Your task to perform on an android device: change the clock style Image 0: 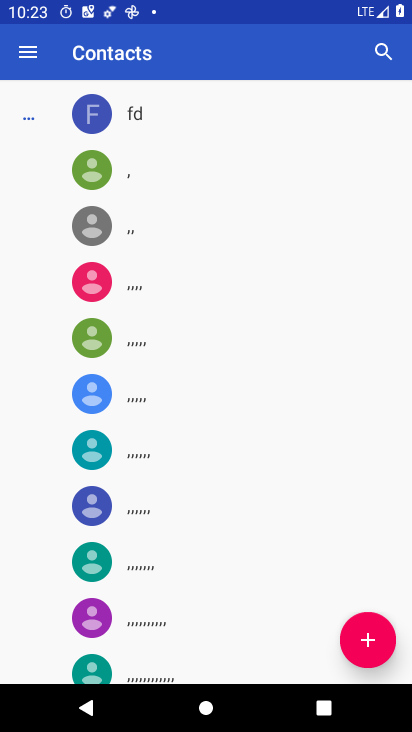
Step 0: press back button
Your task to perform on an android device: change the clock style Image 1: 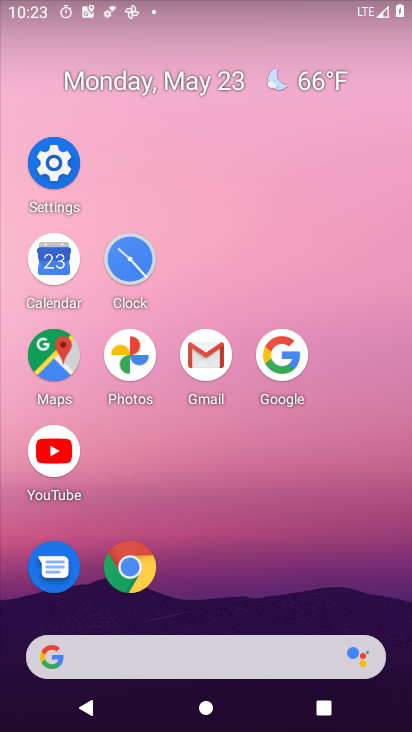
Step 1: click (133, 249)
Your task to perform on an android device: change the clock style Image 2: 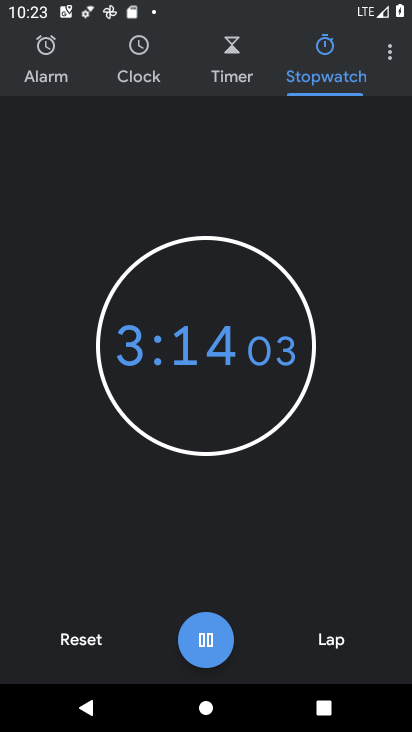
Step 2: click (399, 48)
Your task to perform on an android device: change the clock style Image 3: 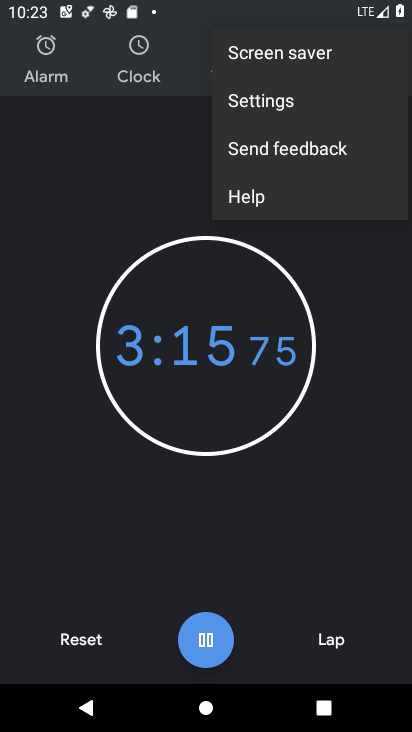
Step 3: click (243, 103)
Your task to perform on an android device: change the clock style Image 4: 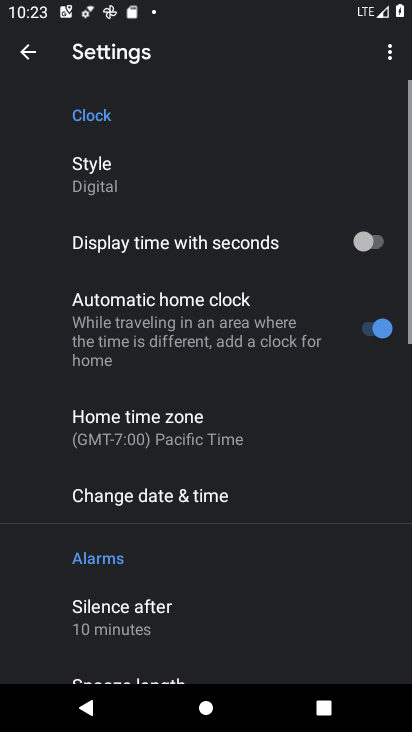
Step 4: click (153, 169)
Your task to perform on an android device: change the clock style Image 5: 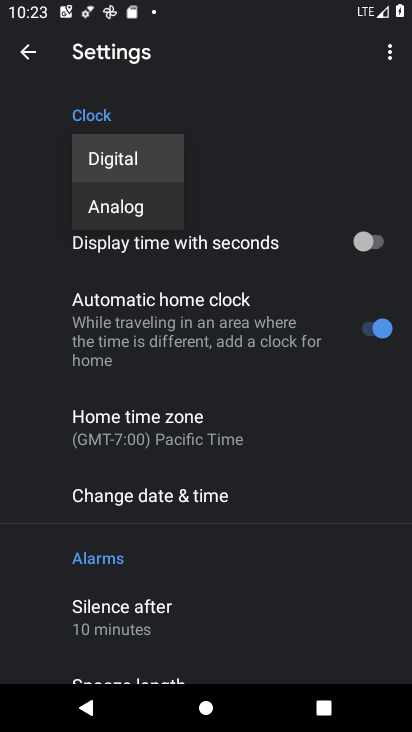
Step 5: click (151, 218)
Your task to perform on an android device: change the clock style Image 6: 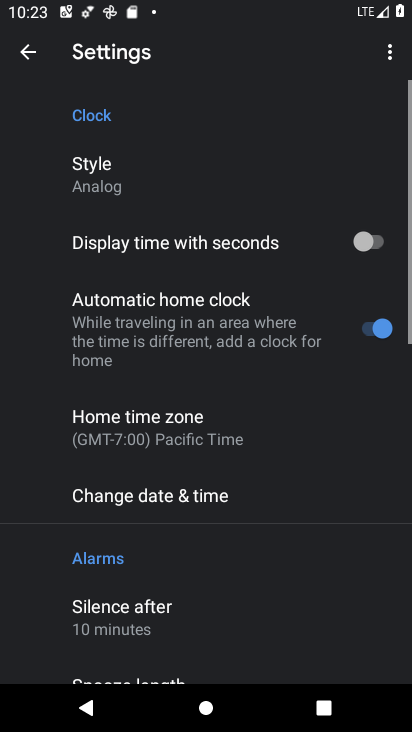
Step 6: task complete